Your task to perform on an android device: open app "Speedtest by Ookla" (install if not already installed) Image 0: 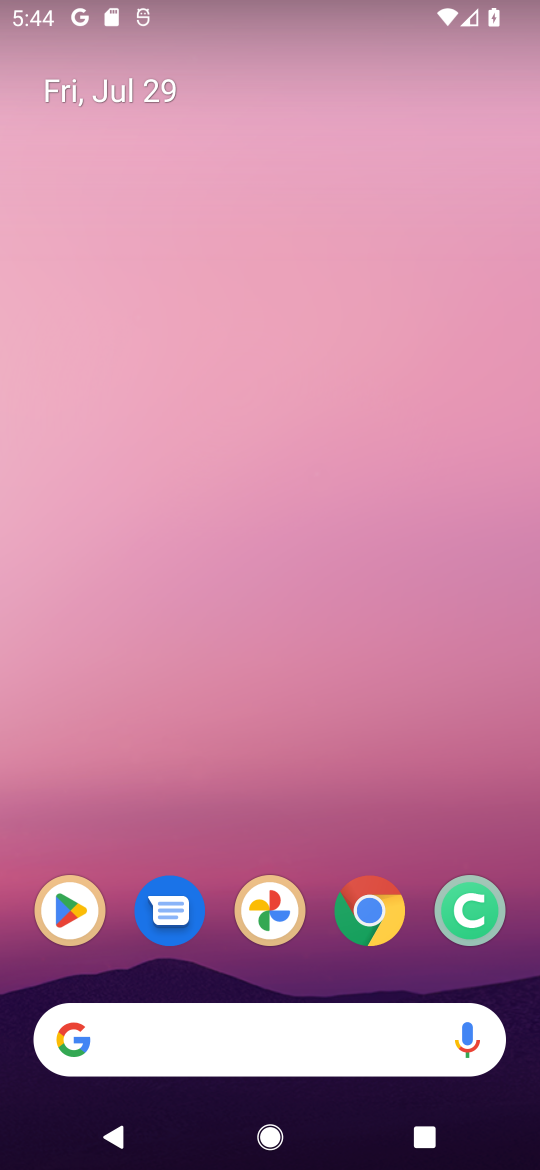
Step 0: click (58, 916)
Your task to perform on an android device: open app "Speedtest by Ookla" (install if not already installed) Image 1: 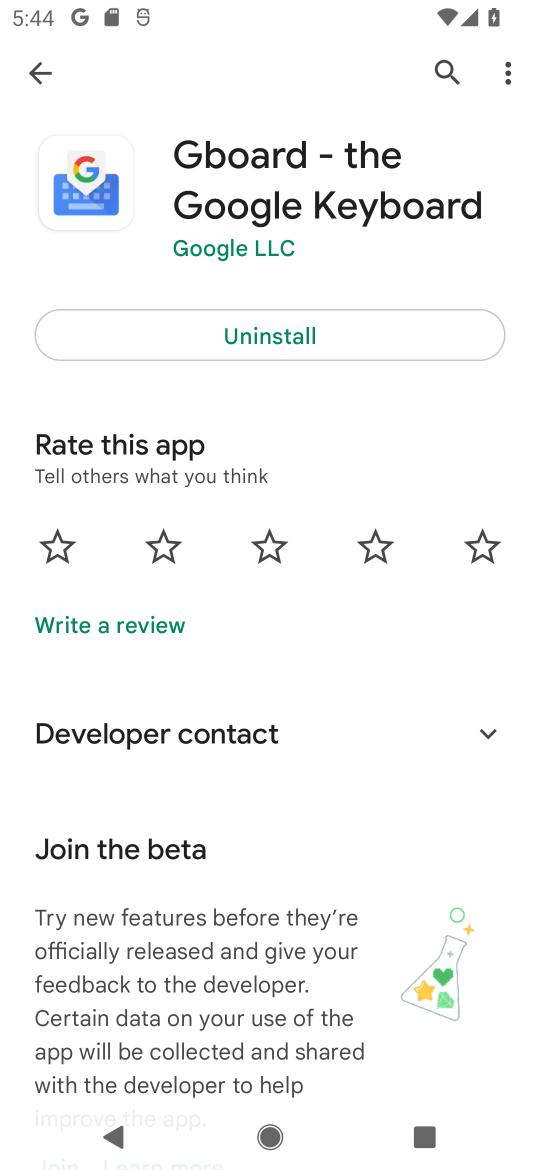
Step 1: click (446, 79)
Your task to perform on an android device: open app "Speedtest by Ookla" (install if not already installed) Image 2: 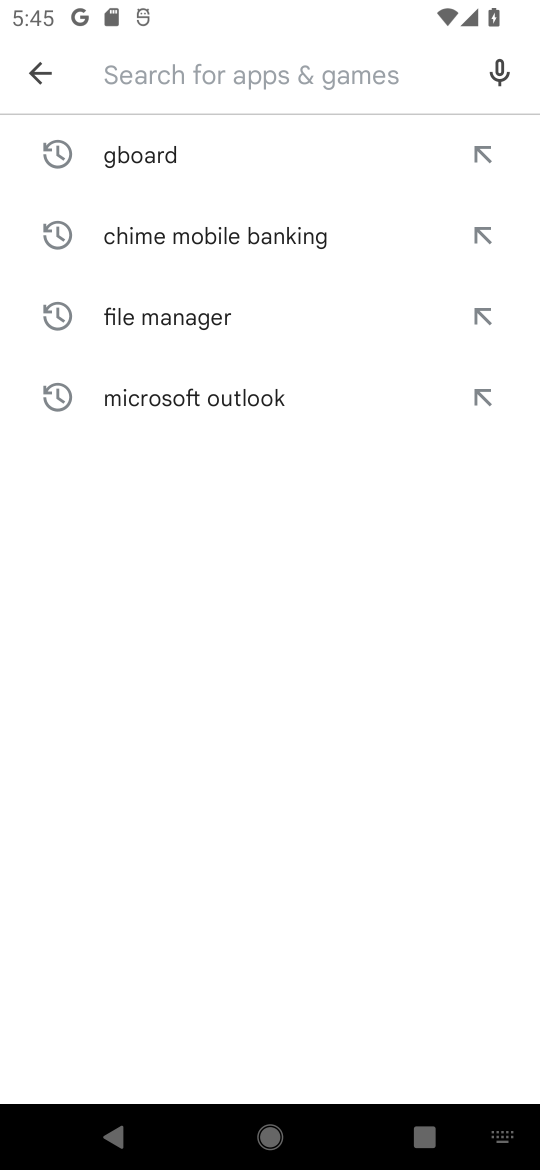
Step 2: type "speedtest by ookla"
Your task to perform on an android device: open app "Speedtest by Ookla" (install if not already installed) Image 3: 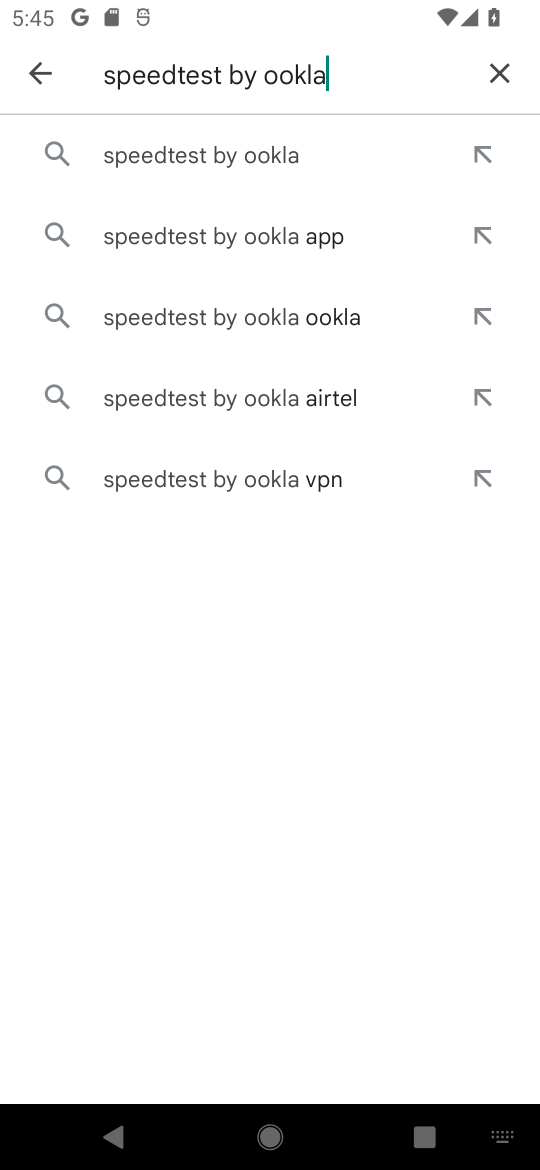
Step 3: click (217, 150)
Your task to perform on an android device: open app "Speedtest by Ookla" (install if not already installed) Image 4: 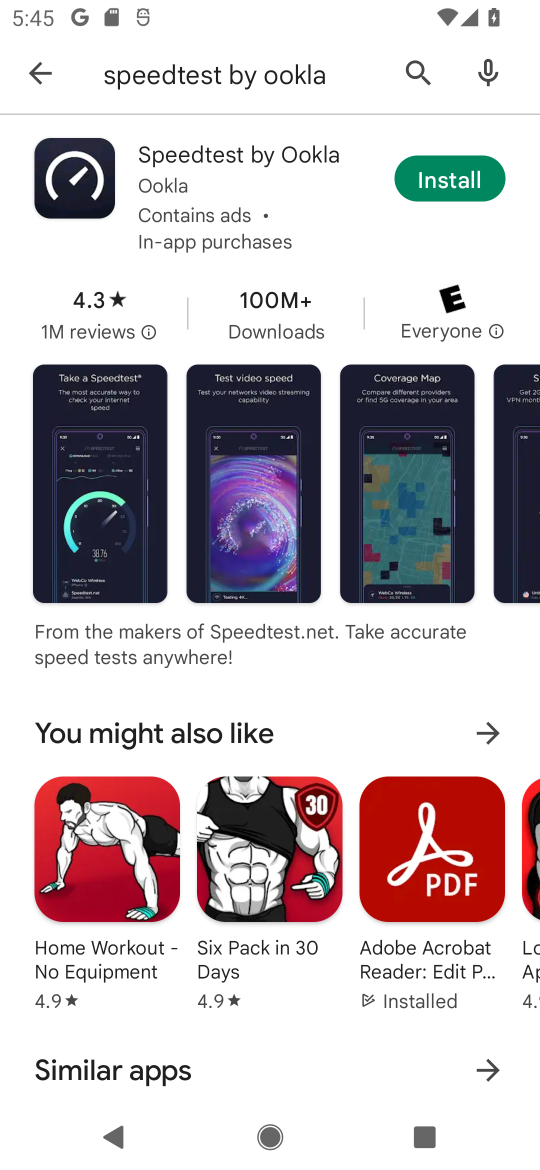
Step 4: click (231, 148)
Your task to perform on an android device: open app "Speedtest by Ookla" (install if not already installed) Image 5: 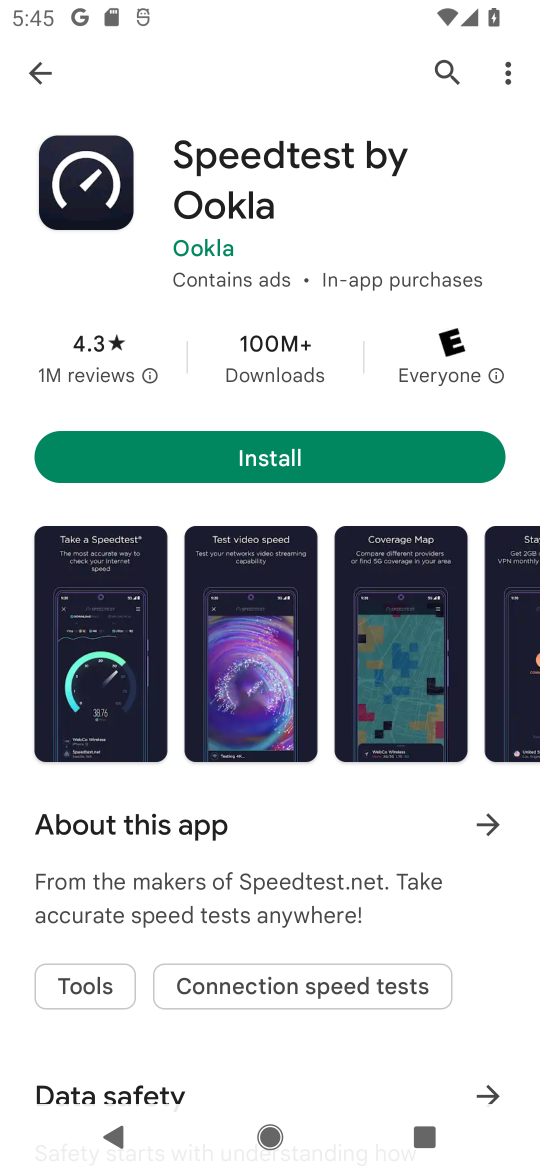
Step 5: click (251, 463)
Your task to perform on an android device: open app "Speedtest by Ookla" (install if not already installed) Image 6: 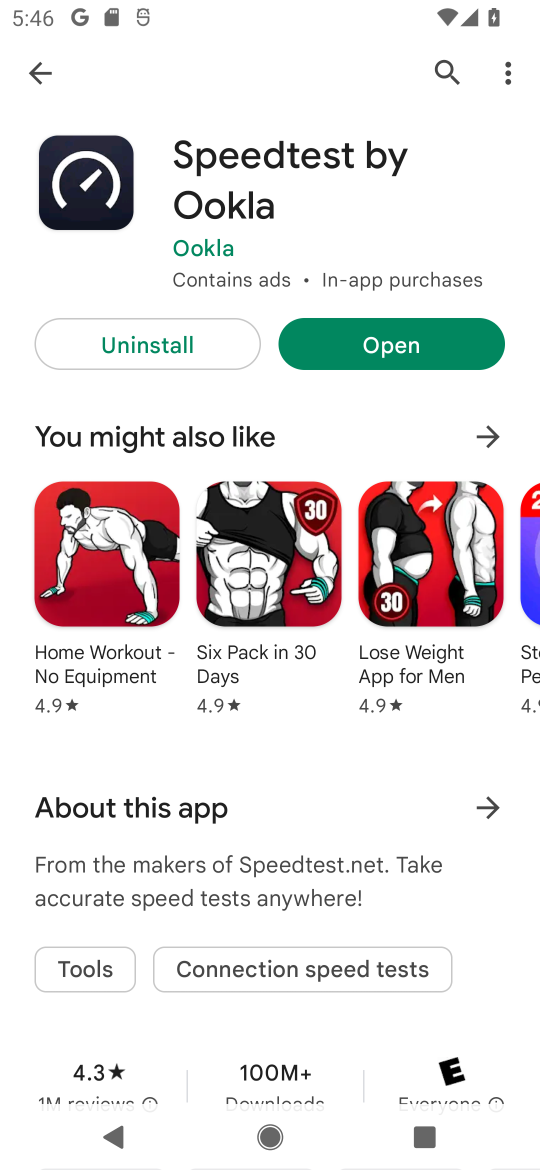
Step 6: click (394, 342)
Your task to perform on an android device: open app "Speedtest by Ookla" (install if not already installed) Image 7: 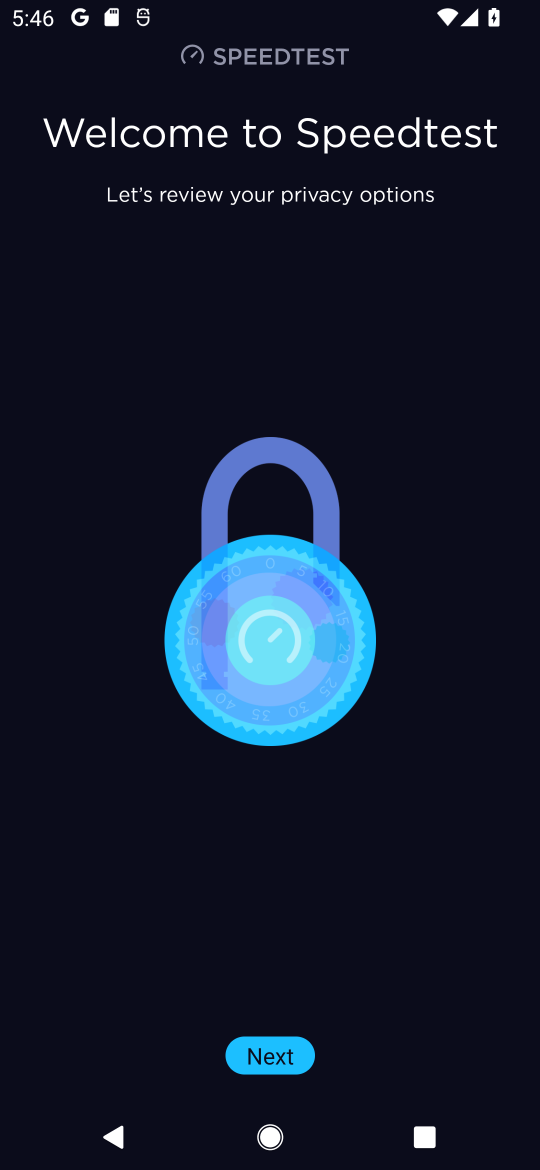
Step 7: task complete